Your task to perform on an android device: Show me some nice wallpapers for my phone Image 0: 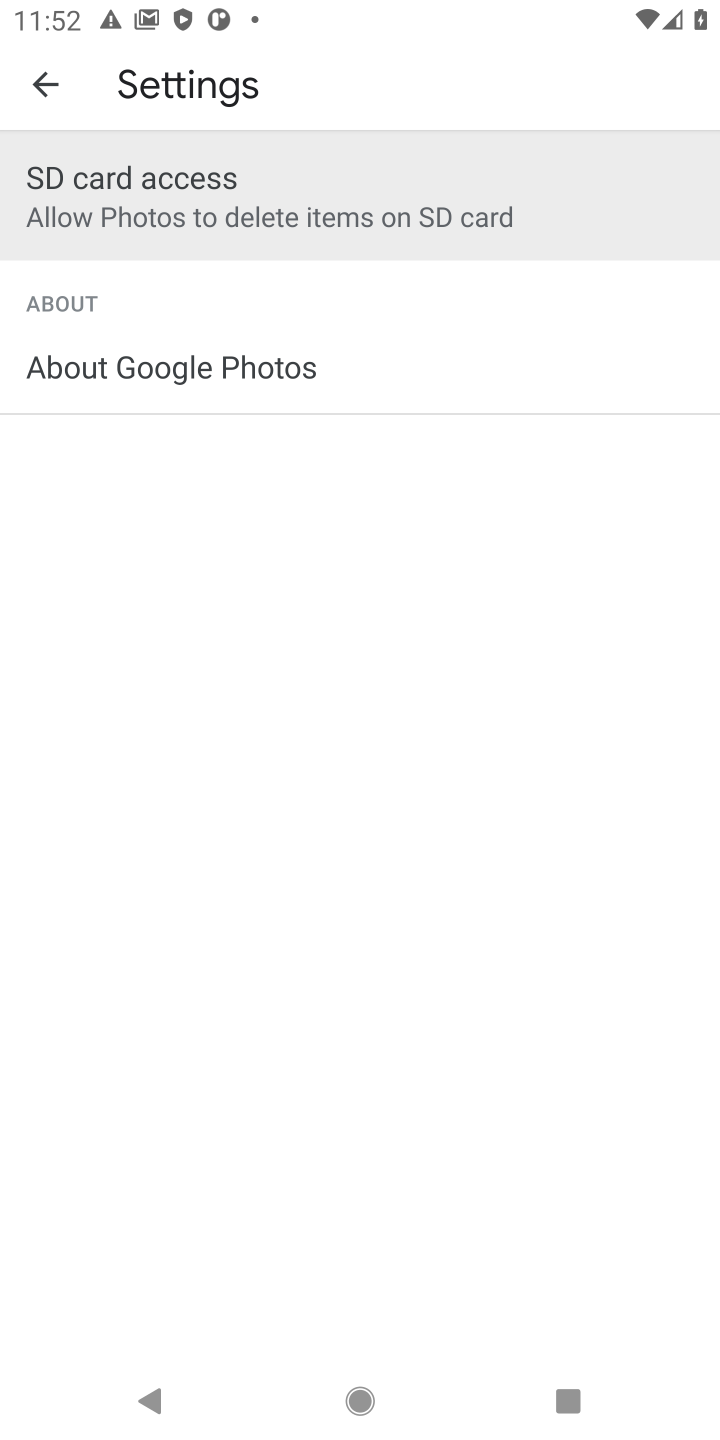
Step 0: press home button
Your task to perform on an android device: Show me some nice wallpapers for my phone Image 1: 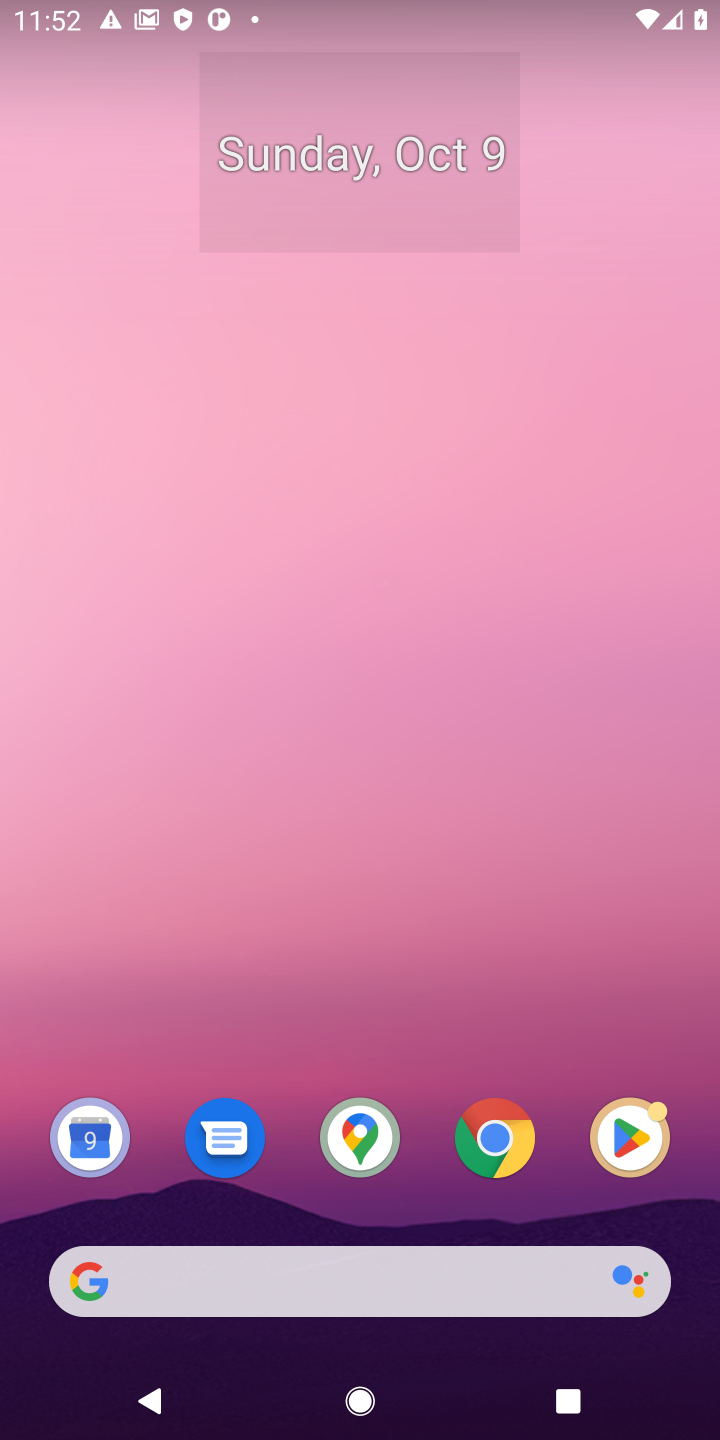
Step 1: click (485, 1142)
Your task to perform on an android device: Show me some nice wallpapers for my phone Image 2: 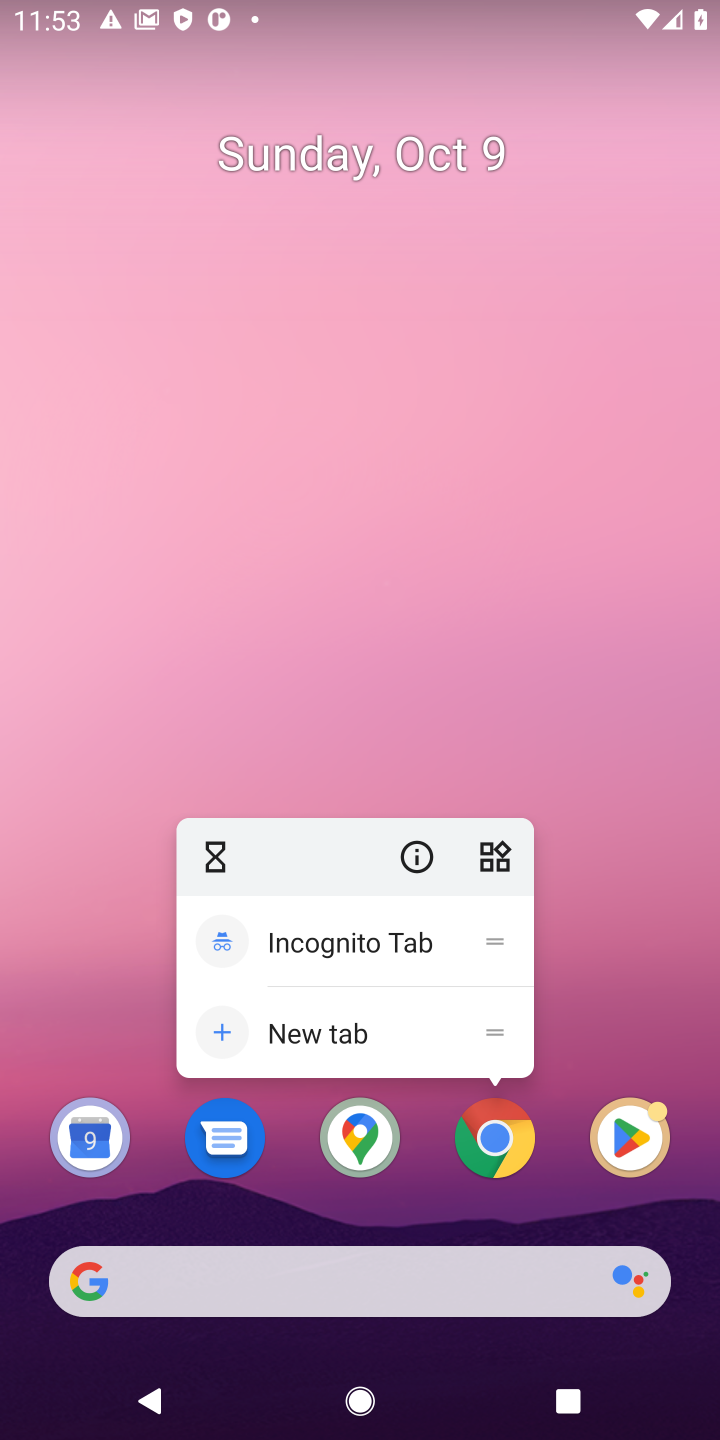
Step 2: click (485, 1142)
Your task to perform on an android device: Show me some nice wallpapers for my phone Image 3: 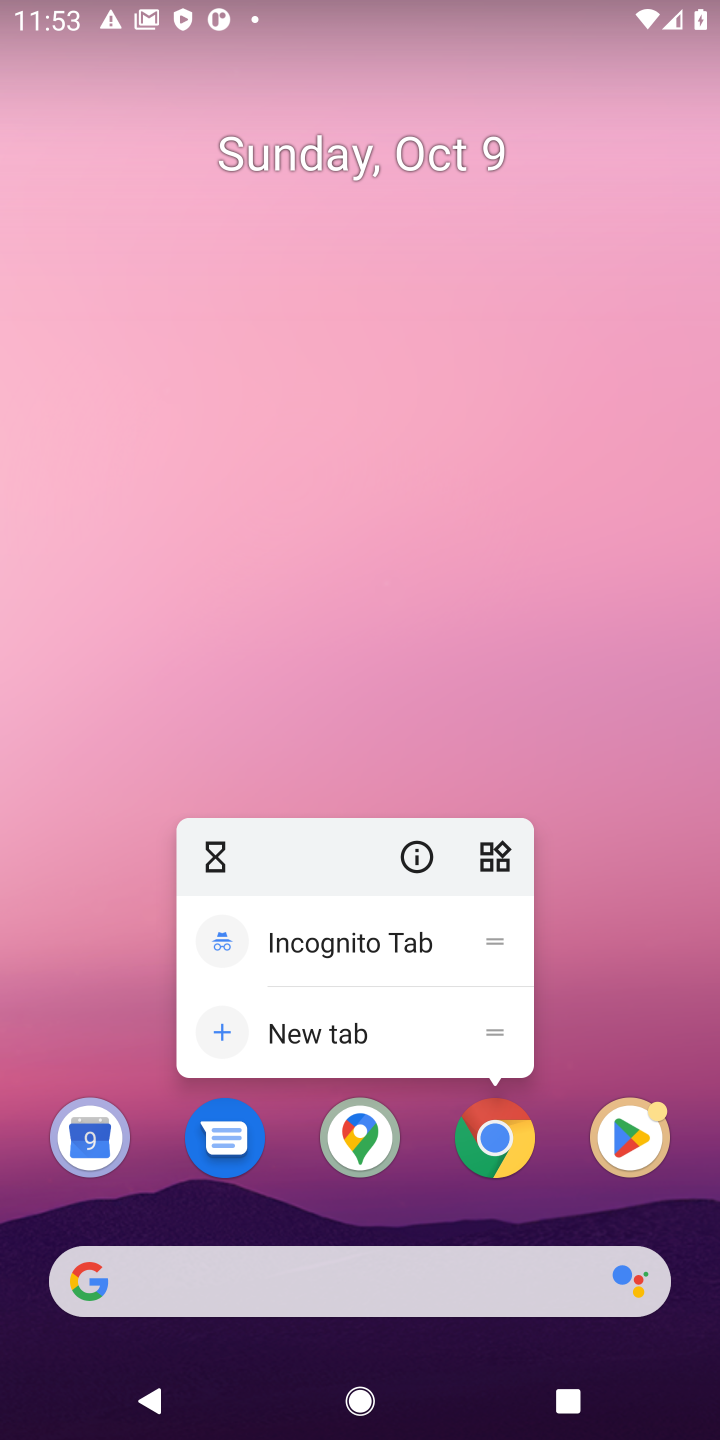
Step 3: click (485, 1142)
Your task to perform on an android device: Show me some nice wallpapers for my phone Image 4: 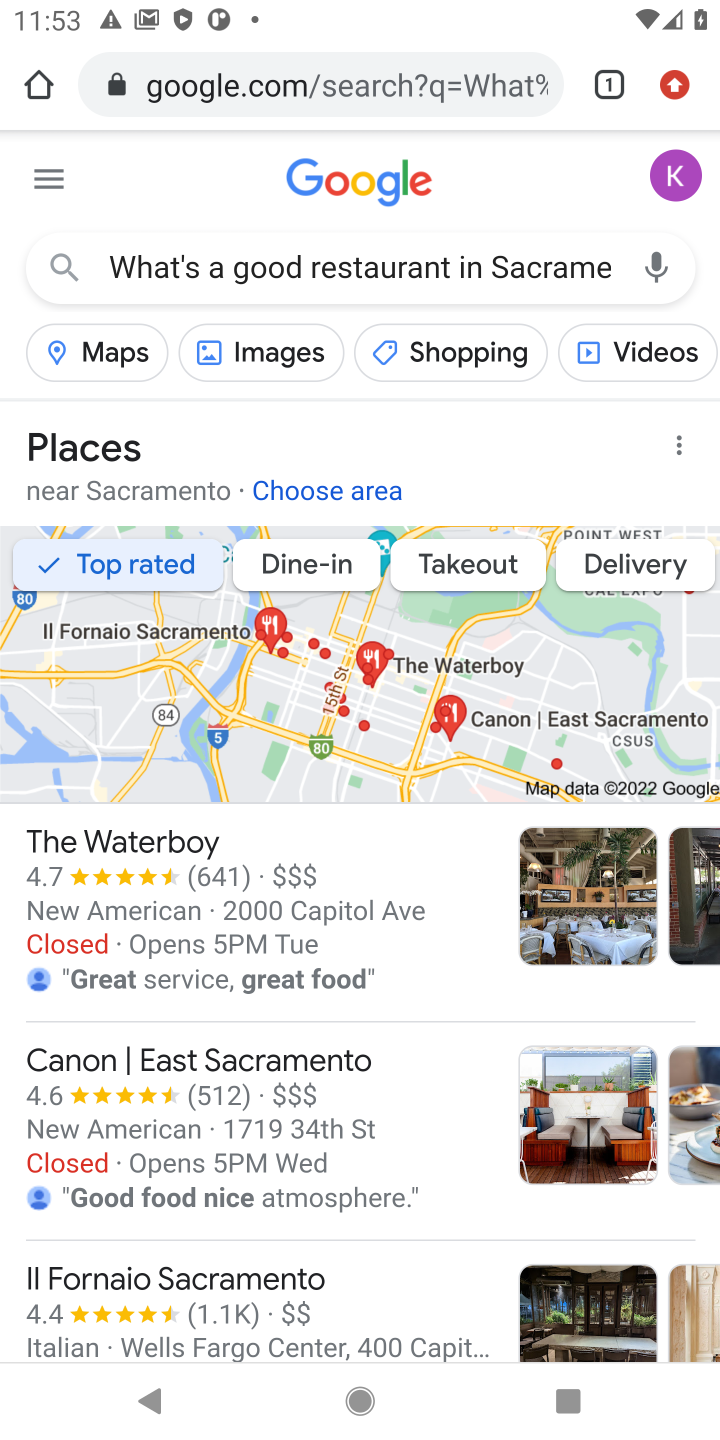
Step 4: click (523, 260)
Your task to perform on an android device: Show me some nice wallpapers for my phone Image 5: 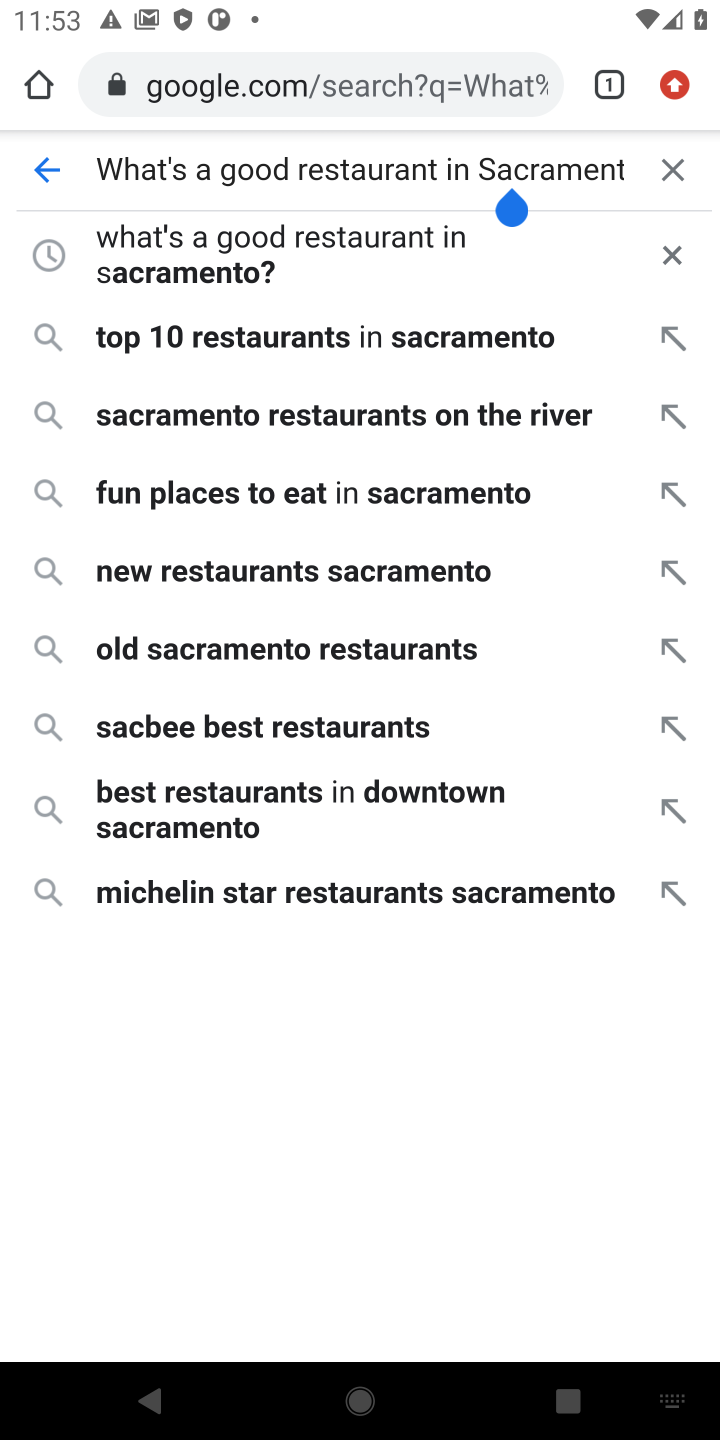
Step 5: click (669, 167)
Your task to perform on an android device: Show me some nice wallpapers for my phone Image 6: 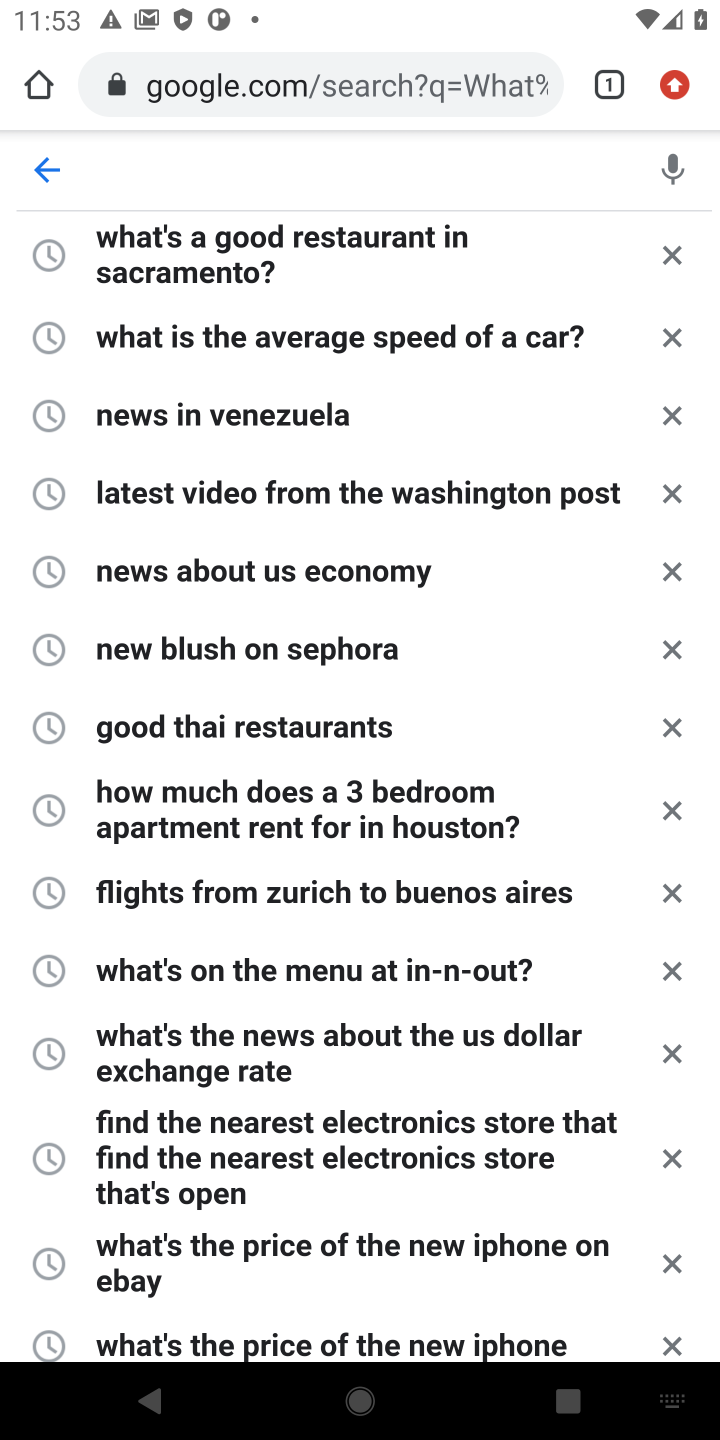
Step 6: click (694, 1419)
Your task to perform on an android device: Show me some nice wallpapers for my phone Image 7: 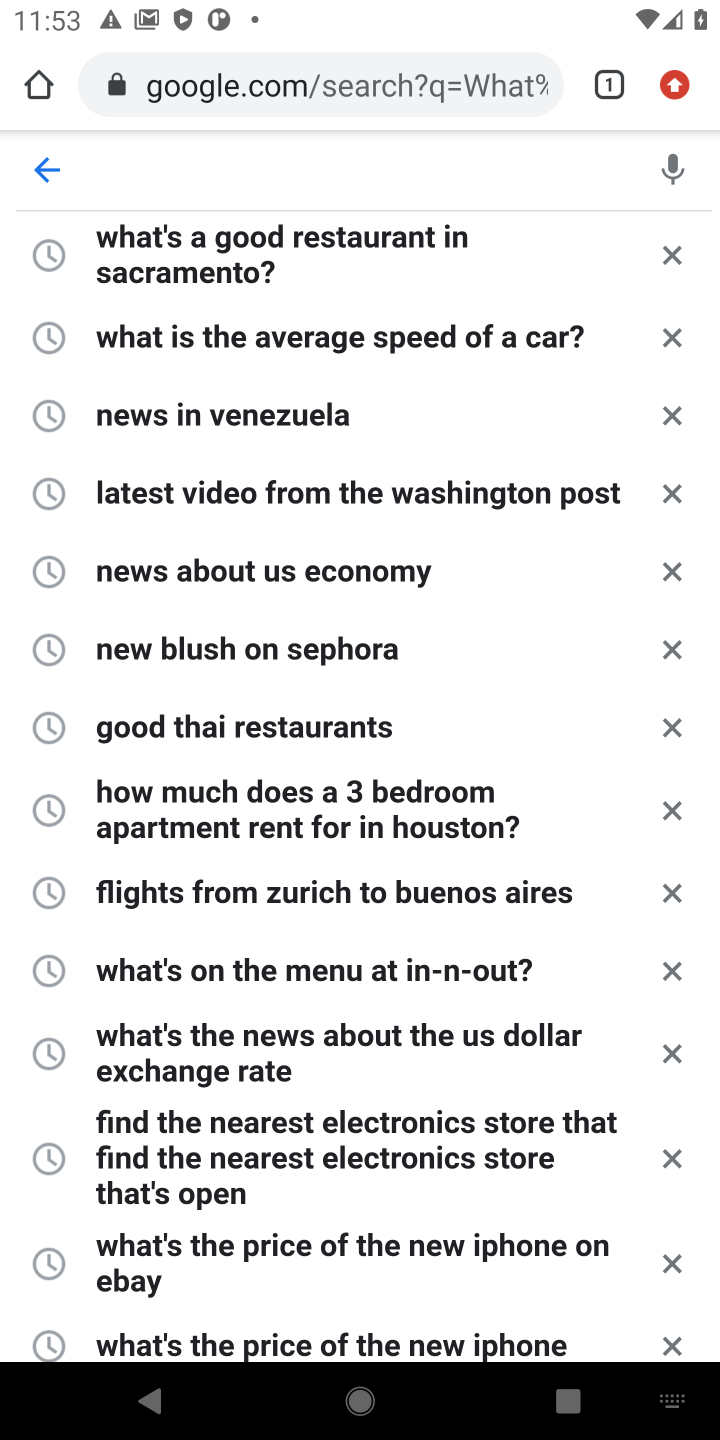
Step 7: type "Show me some nice wallpapers for my phone"
Your task to perform on an android device: Show me some nice wallpapers for my phone Image 8: 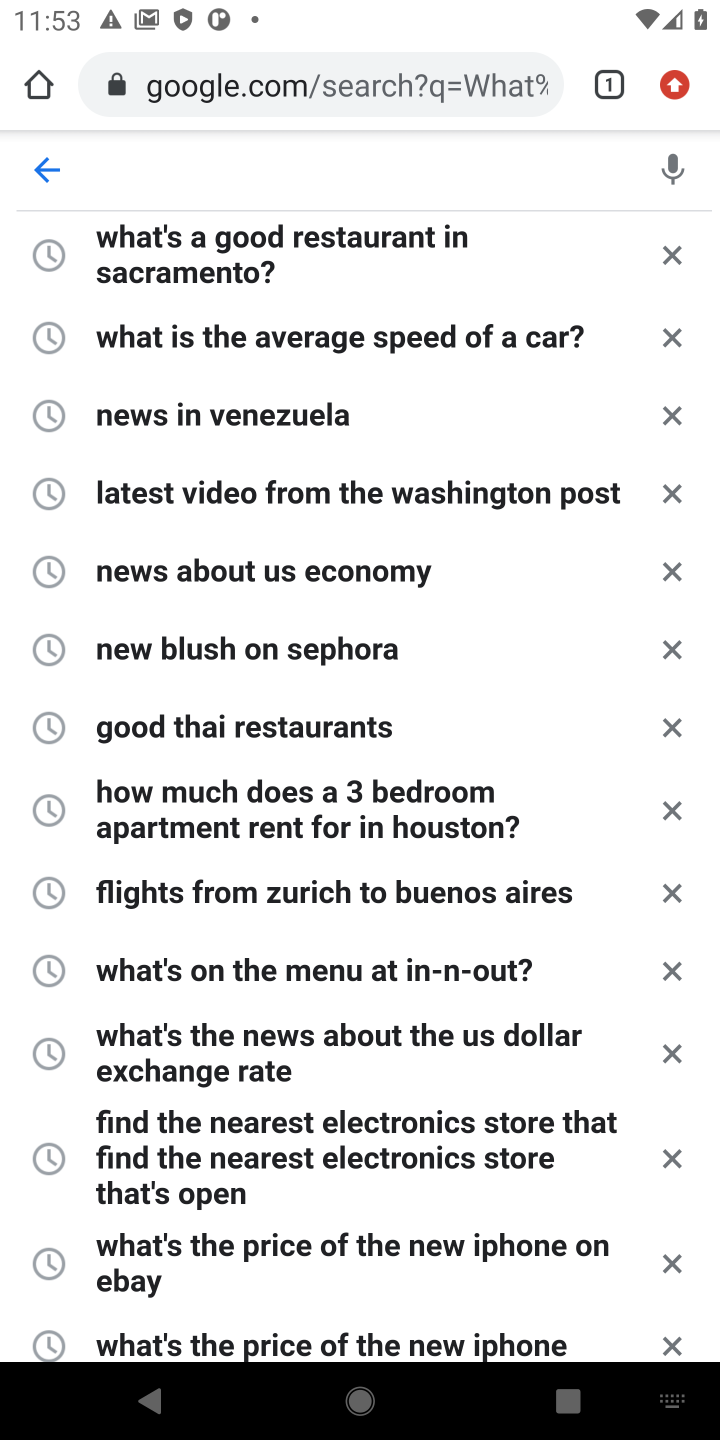
Step 8: click (706, 1419)
Your task to perform on an android device: Show me some nice wallpapers for my phone Image 9: 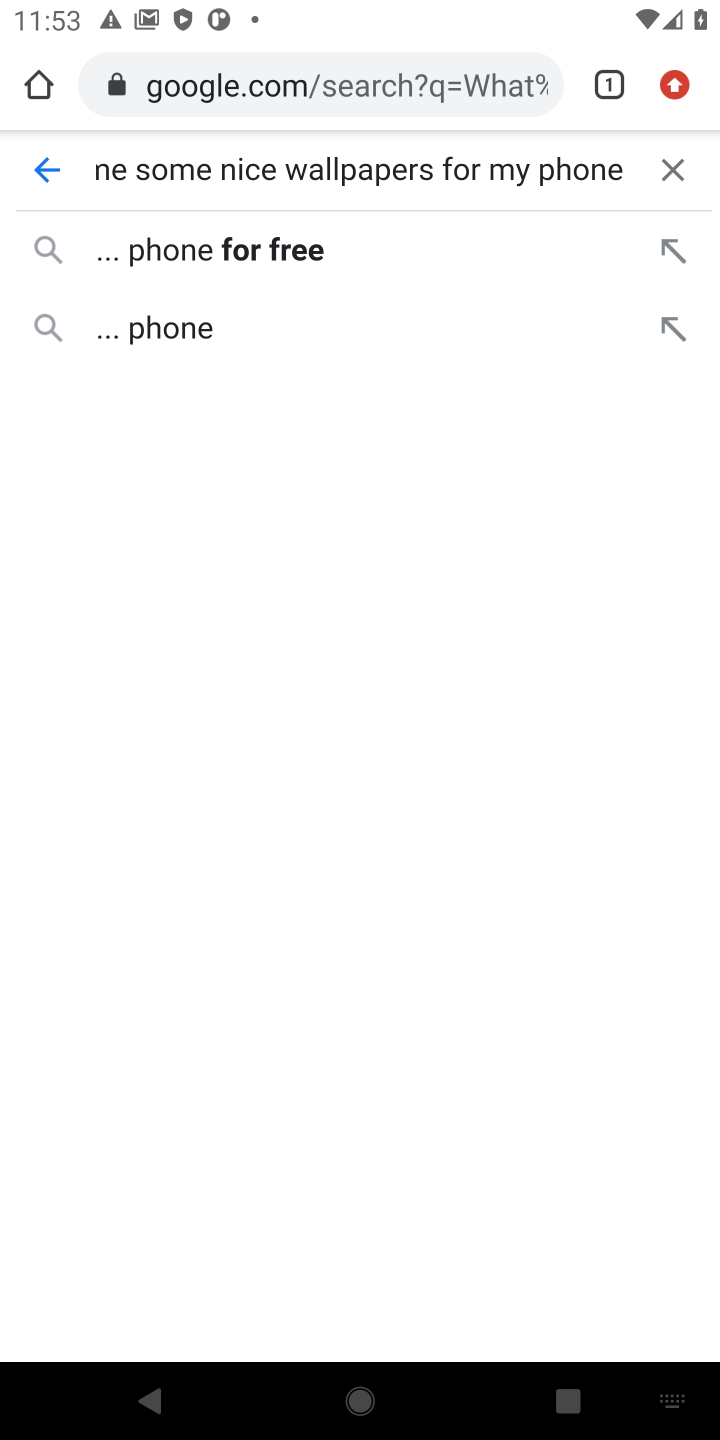
Step 9: press enter
Your task to perform on an android device: Show me some nice wallpapers for my phone Image 10: 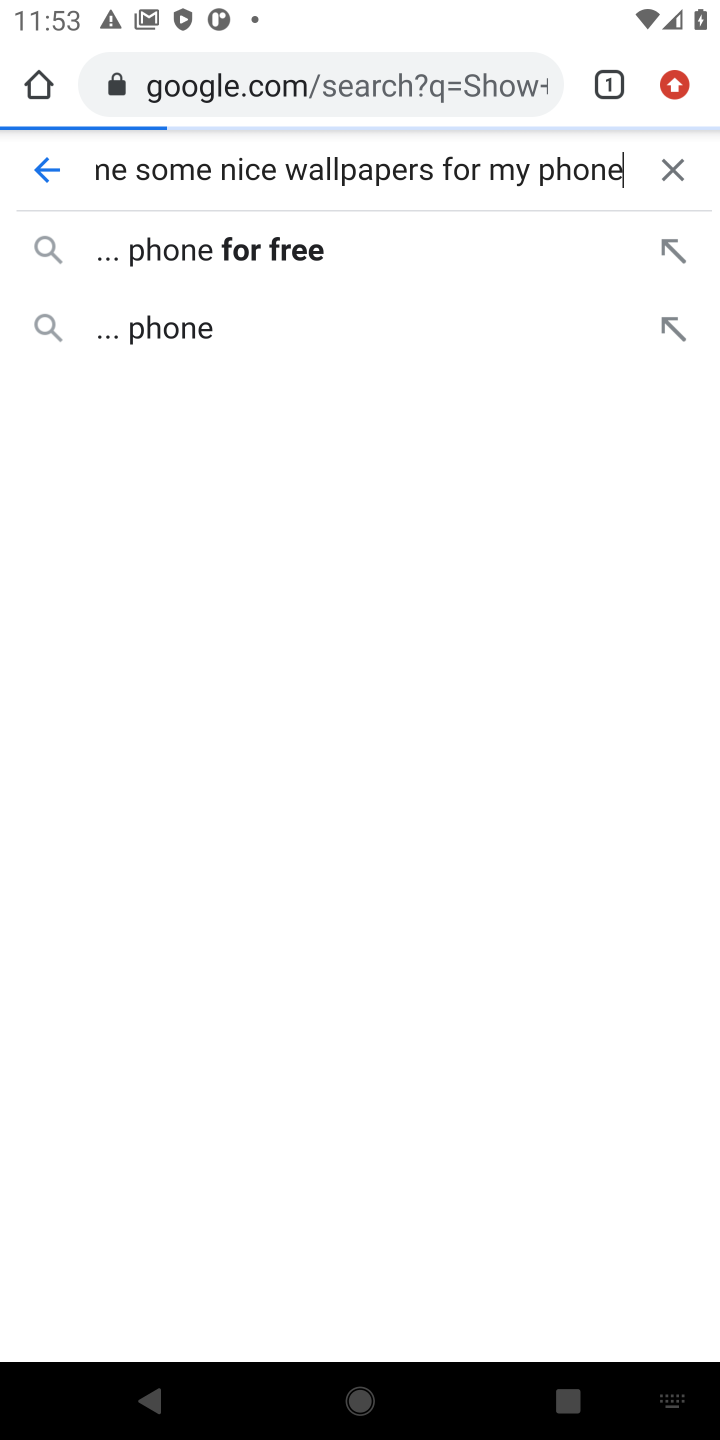
Step 10: task complete